Your task to perform on an android device: Go to Yahoo.com Image 0: 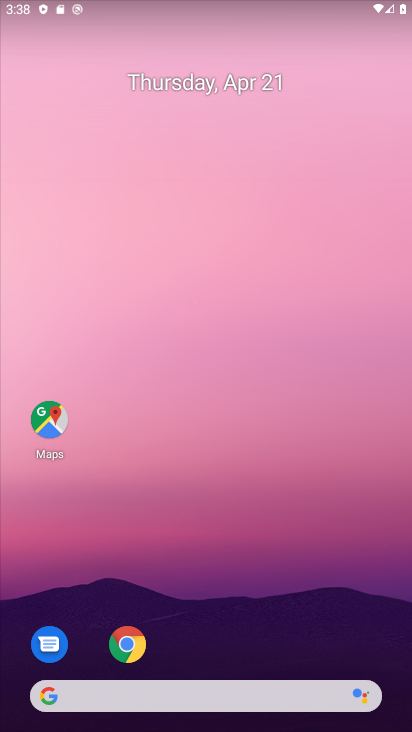
Step 0: click (124, 645)
Your task to perform on an android device: Go to Yahoo.com Image 1: 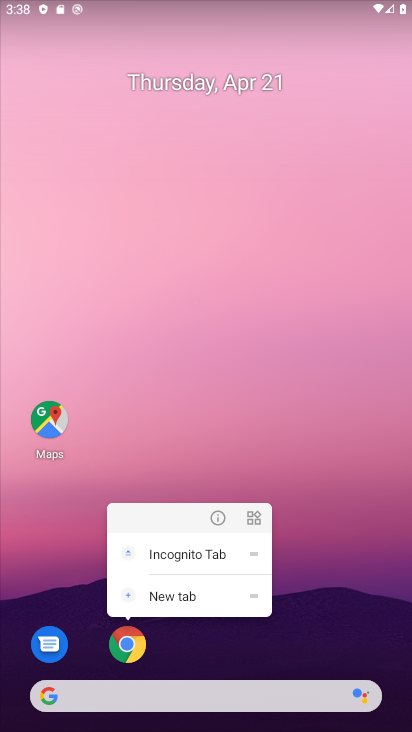
Step 1: click (217, 518)
Your task to perform on an android device: Go to Yahoo.com Image 2: 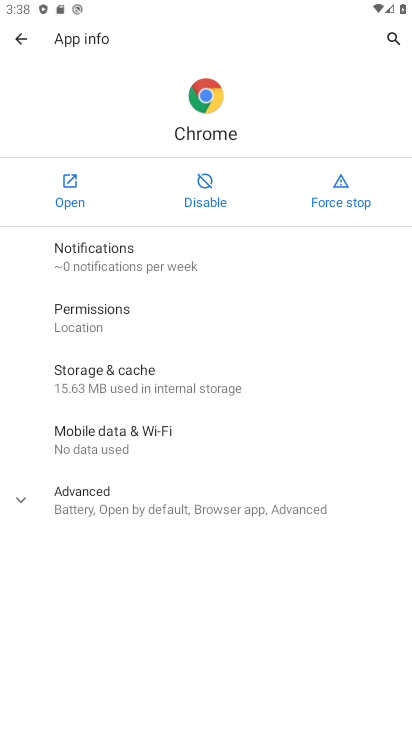
Step 2: click (78, 200)
Your task to perform on an android device: Go to Yahoo.com Image 3: 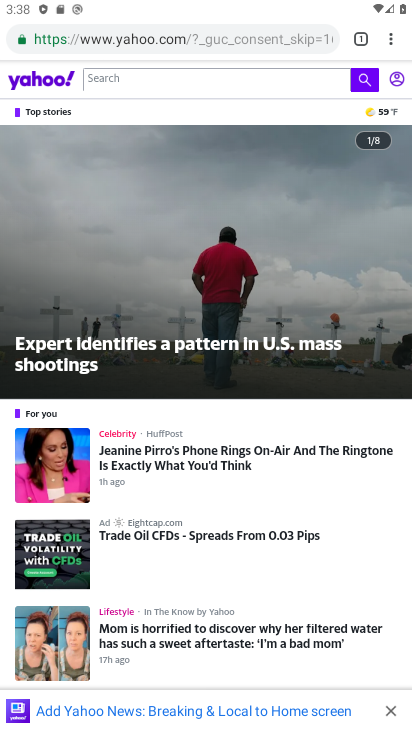
Step 3: click (135, 42)
Your task to perform on an android device: Go to Yahoo.com Image 4: 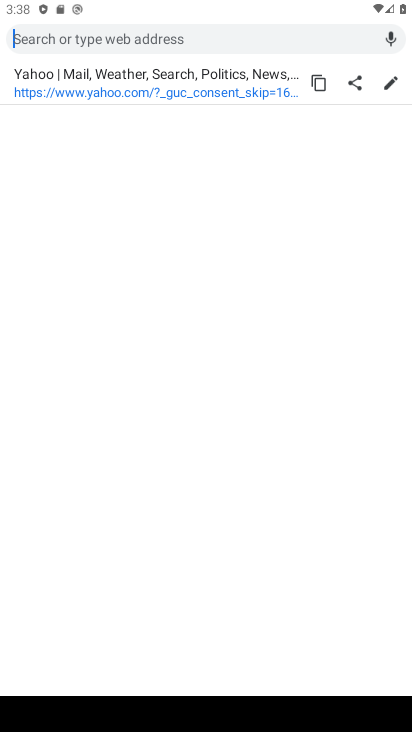
Step 4: type "yahoo.com"
Your task to perform on an android device: Go to Yahoo.com Image 5: 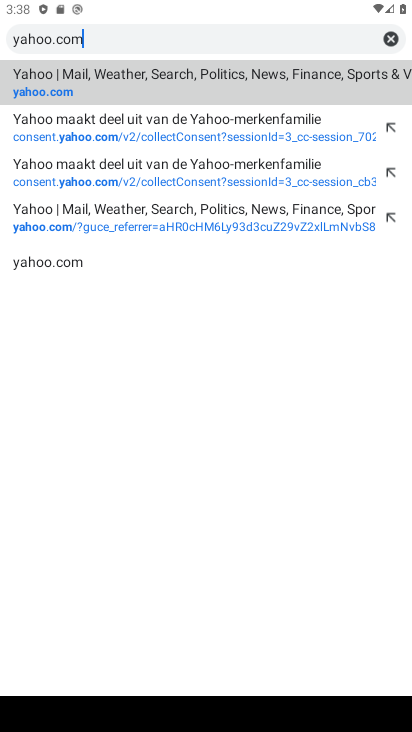
Step 5: click (94, 268)
Your task to perform on an android device: Go to Yahoo.com Image 6: 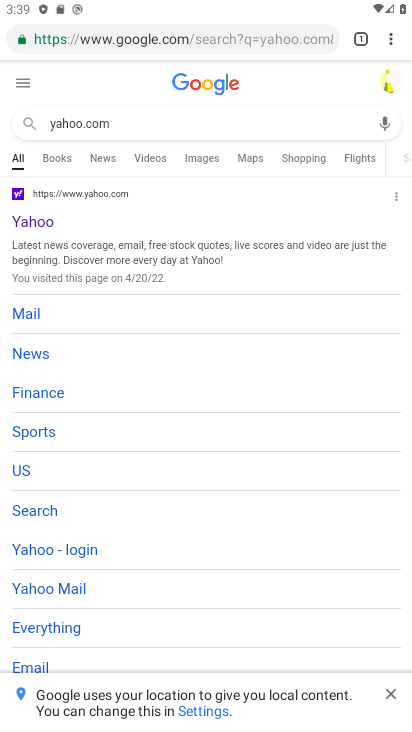
Step 6: task complete